Your task to perform on an android device: turn off notifications in google photos Image 0: 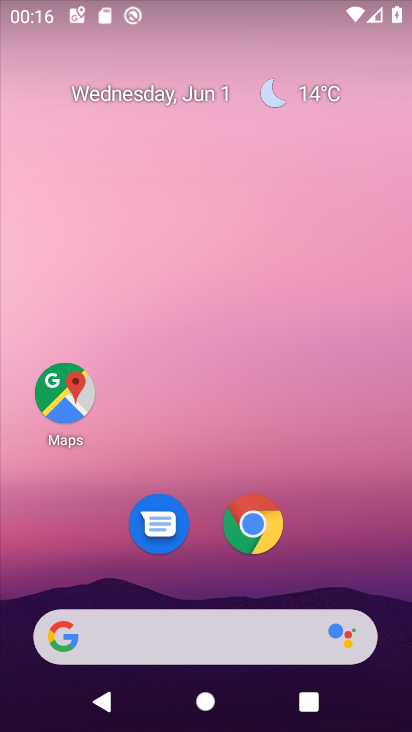
Step 0: drag from (330, 498) to (347, 47)
Your task to perform on an android device: turn off notifications in google photos Image 1: 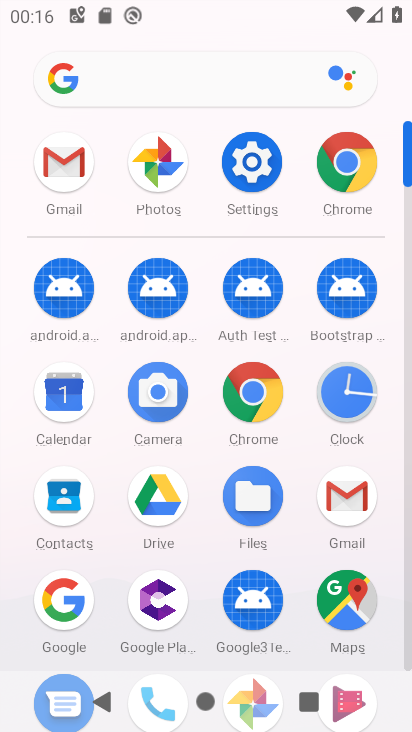
Step 1: click (256, 158)
Your task to perform on an android device: turn off notifications in google photos Image 2: 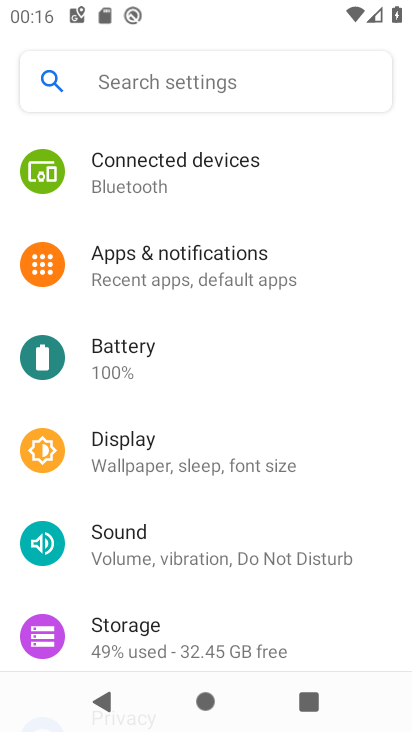
Step 2: click (233, 263)
Your task to perform on an android device: turn off notifications in google photos Image 3: 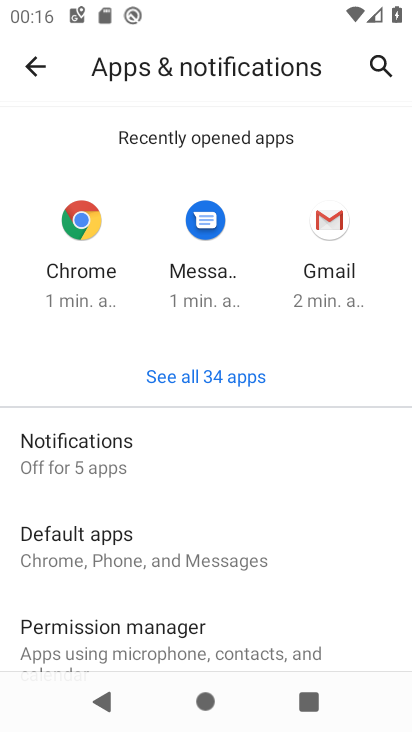
Step 3: click (227, 372)
Your task to perform on an android device: turn off notifications in google photos Image 4: 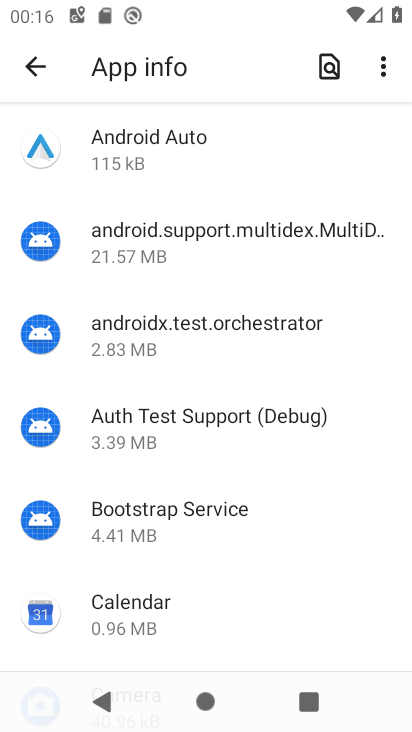
Step 4: drag from (200, 530) to (190, 189)
Your task to perform on an android device: turn off notifications in google photos Image 5: 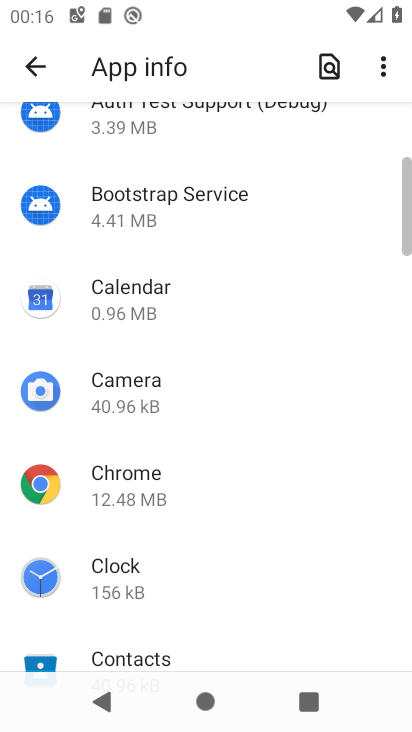
Step 5: drag from (199, 526) to (227, 172)
Your task to perform on an android device: turn off notifications in google photos Image 6: 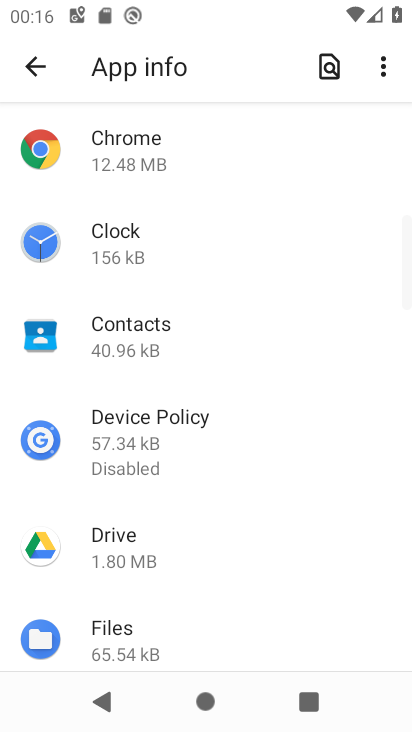
Step 6: drag from (214, 628) to (267, 143)
Your task to perform on an android device: turn off notifications in google photos Image 7: 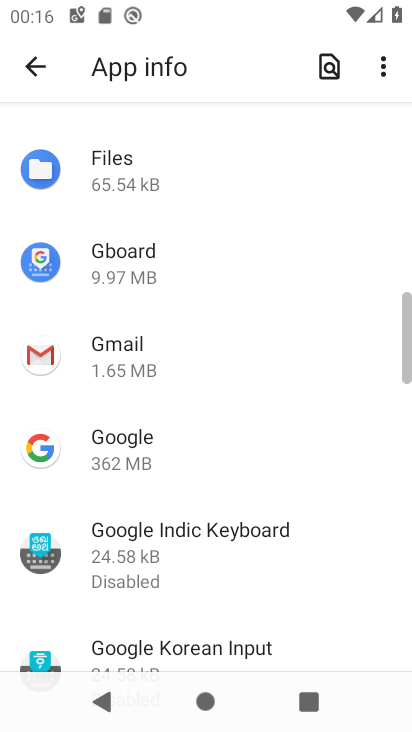
Step 7: drag from (230, 613) to (233, 170)
Your task to perform on an android device: turn off notifications in google photos Image 8: 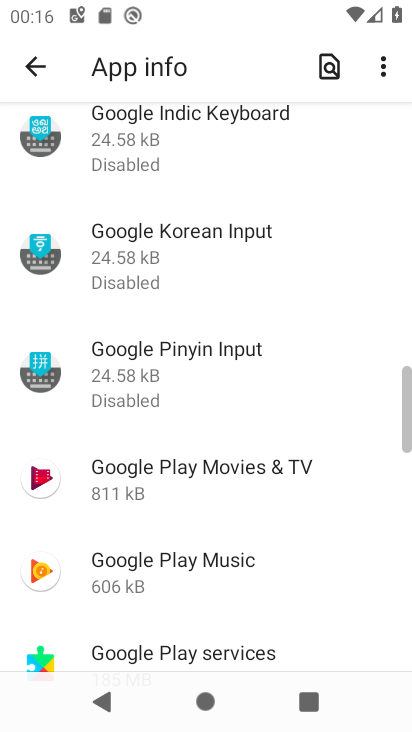
Step 8: drag from (218, 625) to (228, 145)
Your task to perform on an android device: turn off notifications in google photos Image 9: 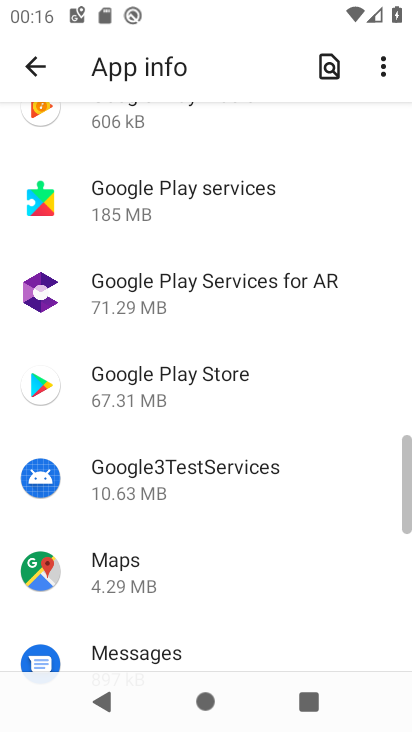
Step 9: drag from (197, 543) to (227, 173)
Your task to perform on an android device: turn off notifications in google photos Image 10: 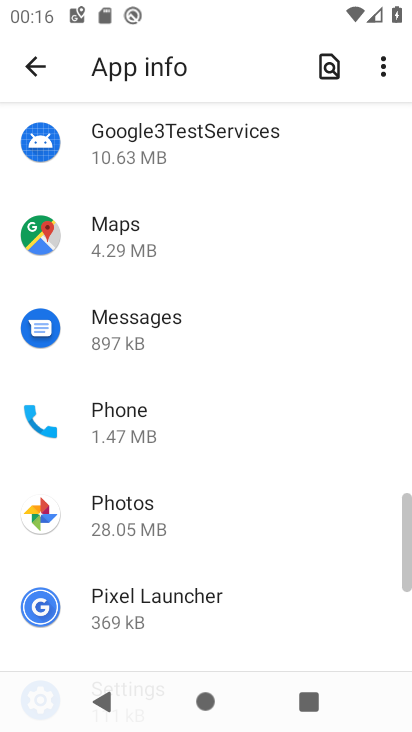
Step 10: click (146, 508)
Your task to perform on an android device: turn off notifications in google photos Image 11: 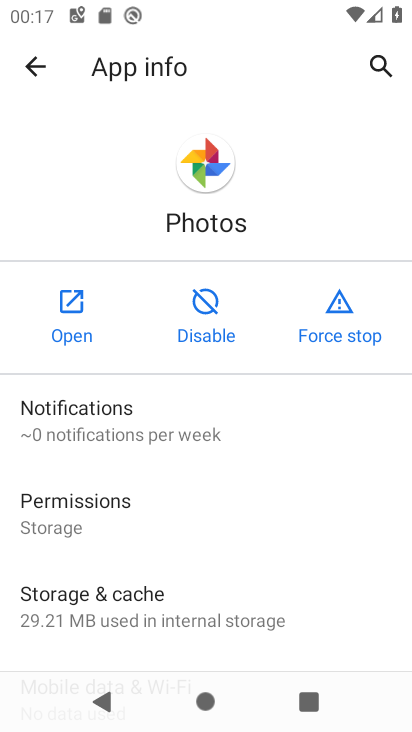
Step 11: click (154, 433)
Your task to perform on an android device: turn off notifications in google photos Image 12: 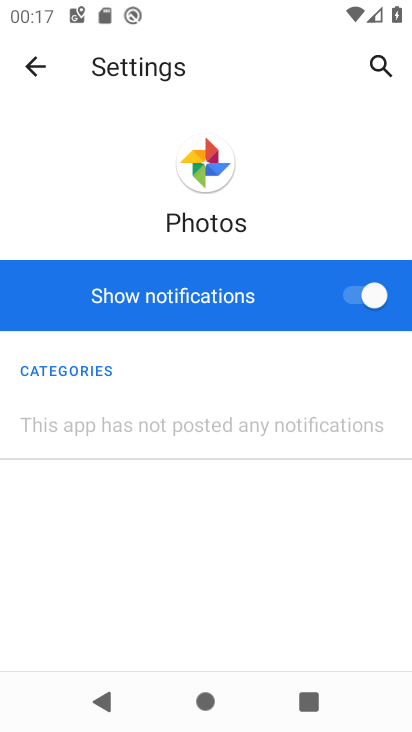
Step 12: click (362, 292)
Your task to perform on an android device: turn off notifications in google photos Image 13: 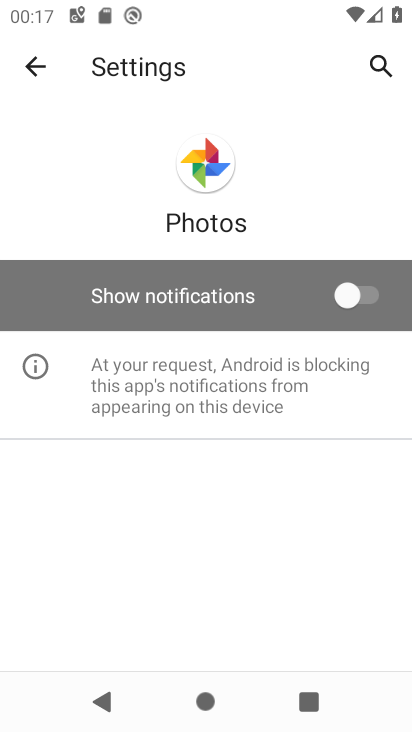
Step 13: task complete